Your task to perform on an android device: check the backup settings in the google photos Image 0: 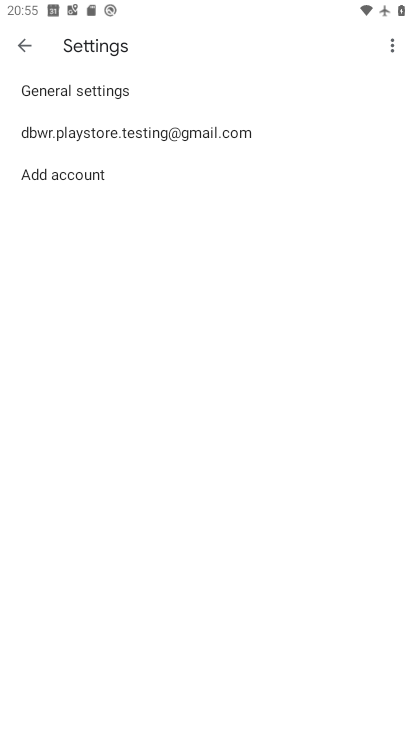
Step 0: press home button
Your task to perform on an android device: check the backup settings in the google photos Image 1: 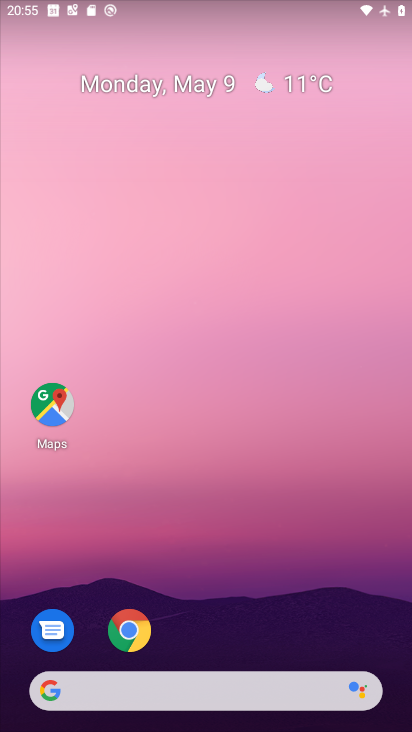
Step 1: drag from (223, 650) to (240, 194)
Your task to perform on an android device: check the backup settings in the google photos Image 2: 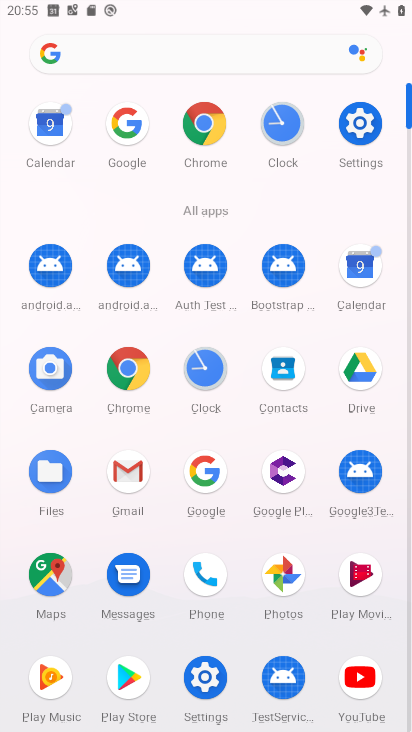
Step 2: click (298, 564)
Your task to perform on an android device: check the backup settings in the google photos Image 3: 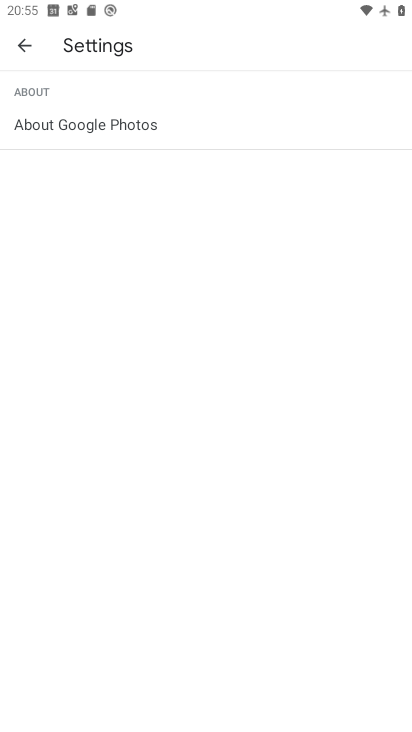
Step 3: press back button
Your task to perform on an android device: check the backup settings in the google photos Image 4: 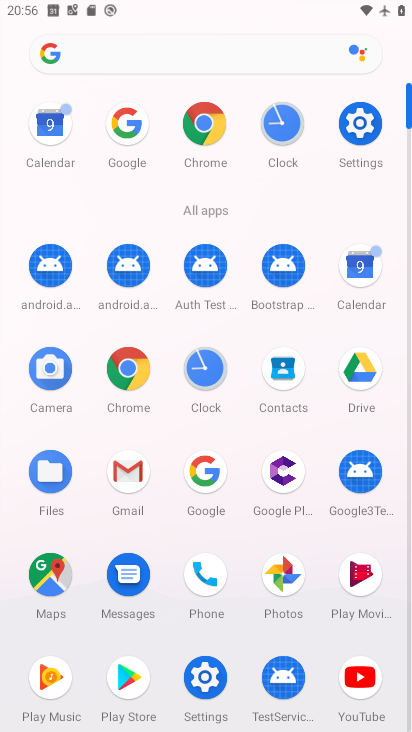
Step 4: click (275, 580)
Your task to perform on an android device: check the backup settings in the google photos Image 5: 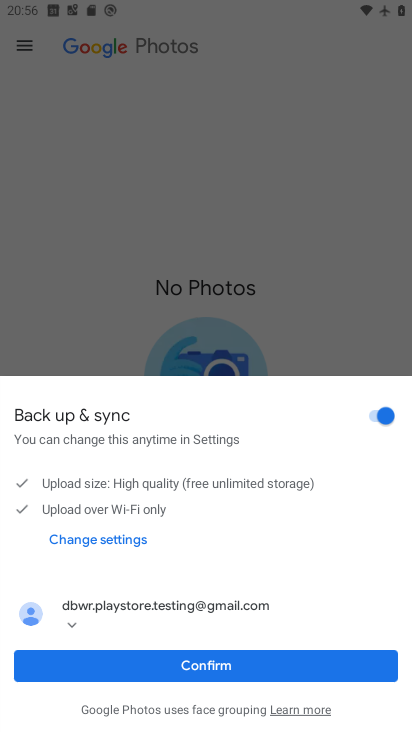
Step 5: click (202, 649)
Your task to perform on an android device: check the backup settings in the google photos Image 6: 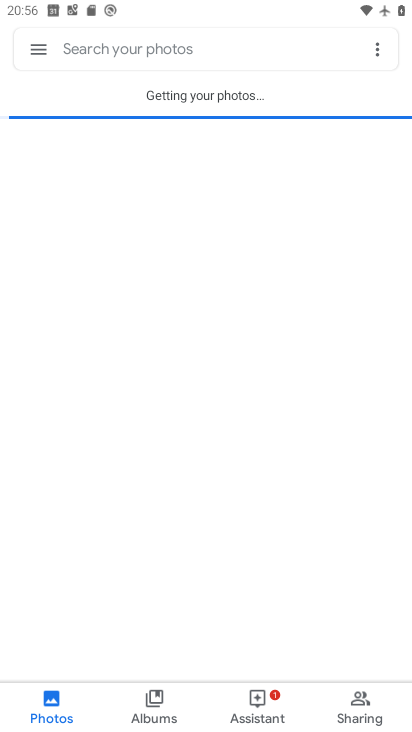
Step 6: click (377, 57)
Your task to perform on an android device: check the backup settings in the google photos Image 7: 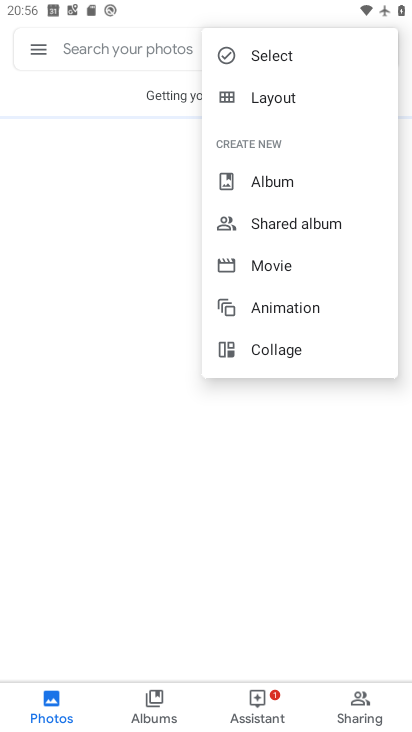
Step 7: click (36, 58)
Your task to perform on an android device: check the backup settings in the google photos Image 8: 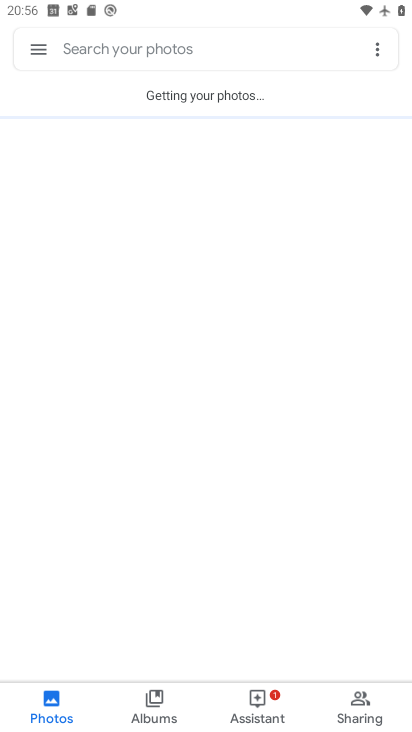
Step 8: click (38, 51)
Your task to perform on an android device: check the backup settings in the google photos Image 9: 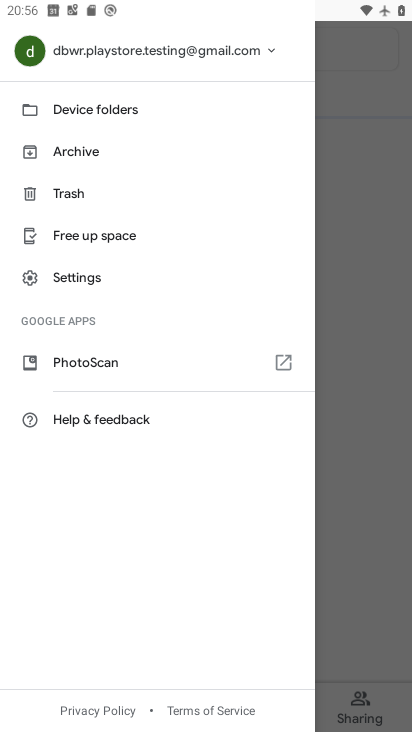
Step 9: click (88, 274)
Your task to perform on an android device: check the backup settings in the google photos Image 10: 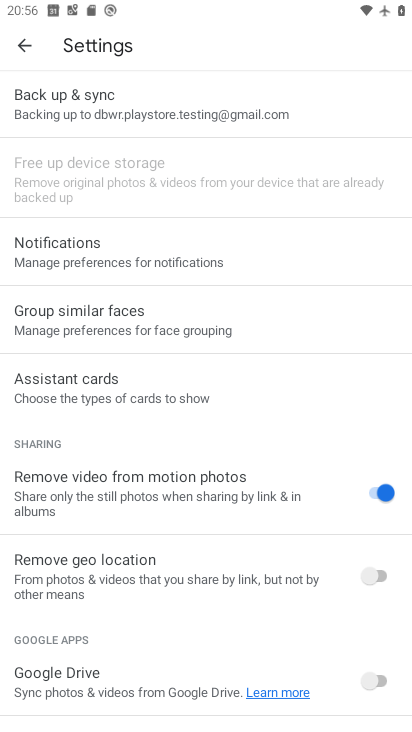
Step 10: click (88, 122)
Your task to perform on an android device: check the backup settings in the google photos Image 11: 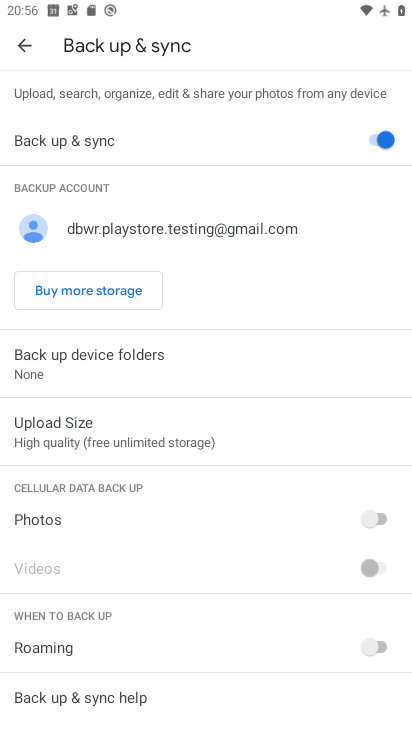
Step 11: task complete